Your task to perform on an android device: turn off javascript in the chrome app Image 0: 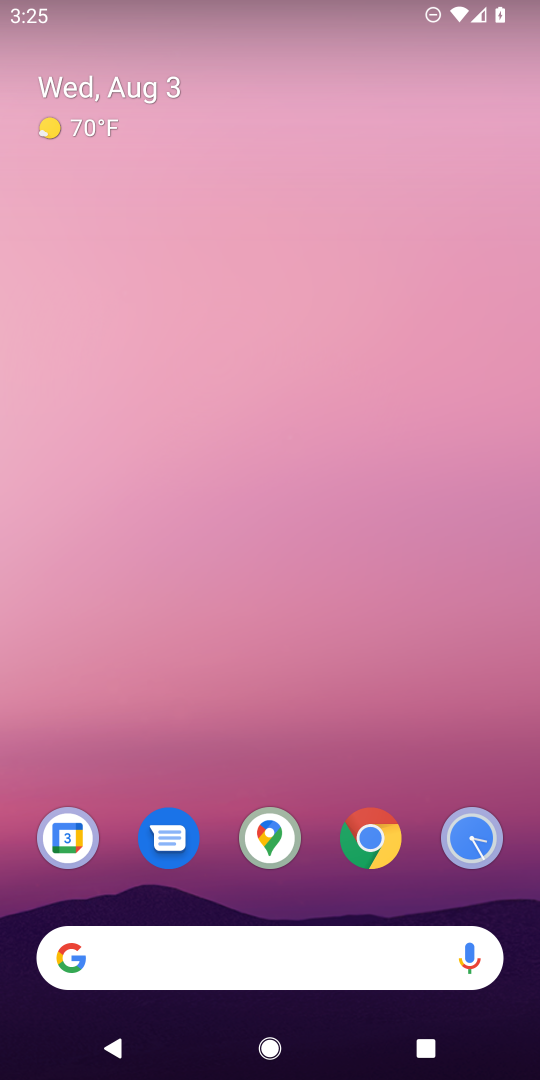
Step 0: click (377, 831)
Your task to perform on an android device: turn off javascript in the chrome app Image 1: 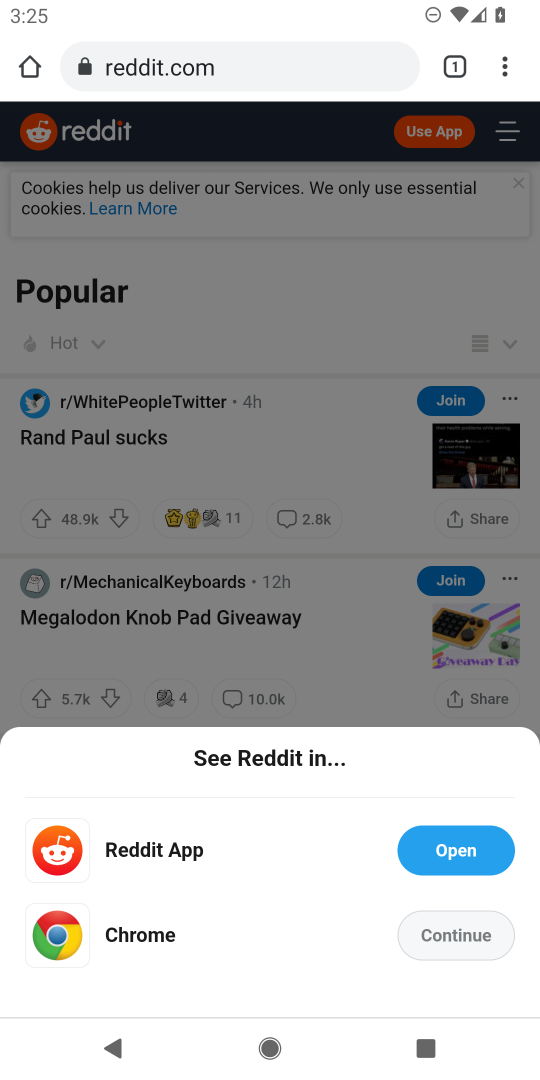
Step 1: click (507, 62)
Your task to perform on an android device: turn off javascript in the chrome app Image 2: 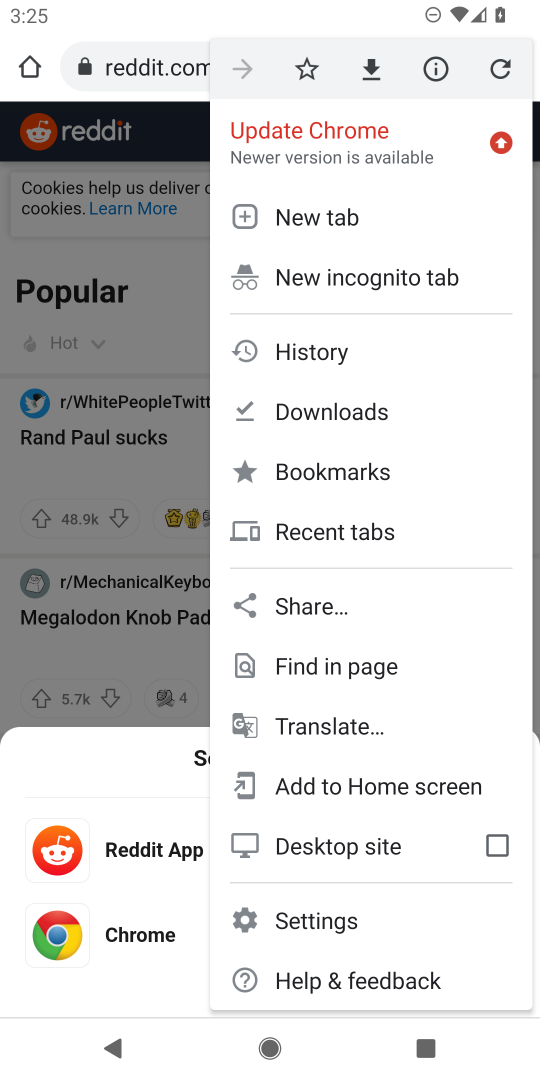
Step 2: click (290, 908)
Your task to perform on an android device: turn off javascript in the chrome app Image 3: 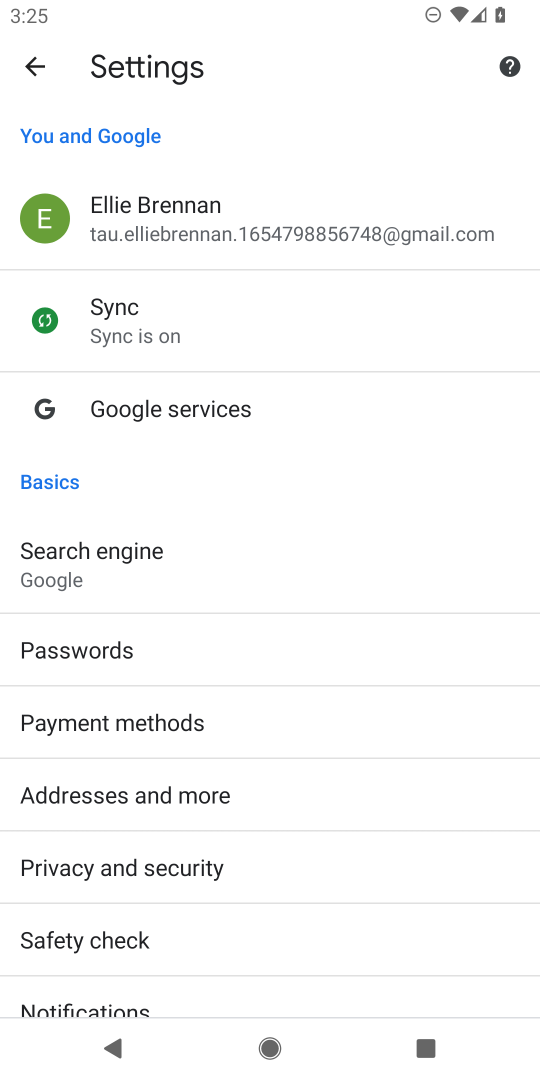
Step 3: drag from (171, 925) to (304, 23)
Your task to perform on an android device: turn off javascript in the chrome app Image 4: 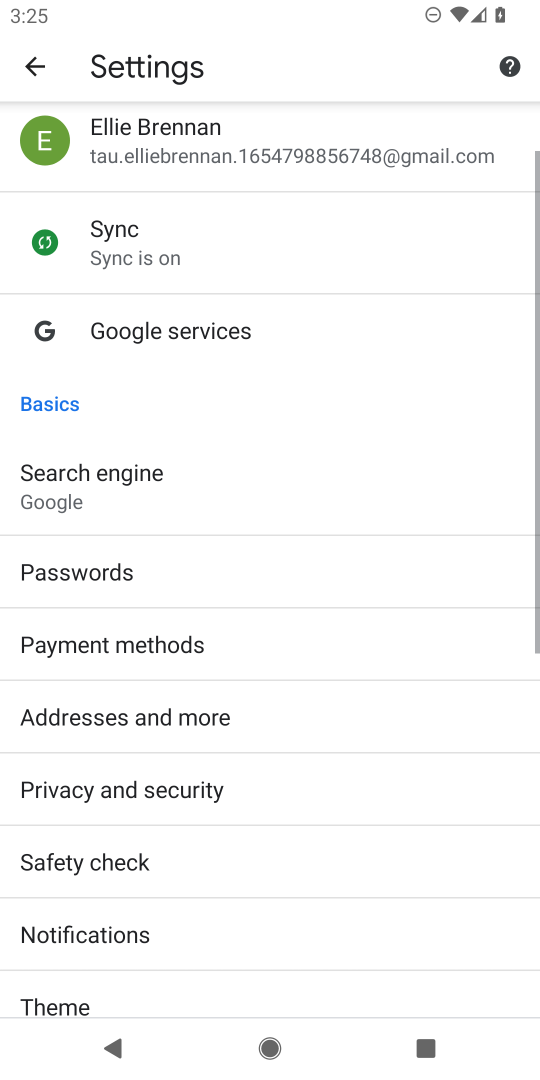
Step 4: drag from (258, 711) to (288, 366)
Your task to perform on an android device: turn off javascript in the chrome app Image 5: 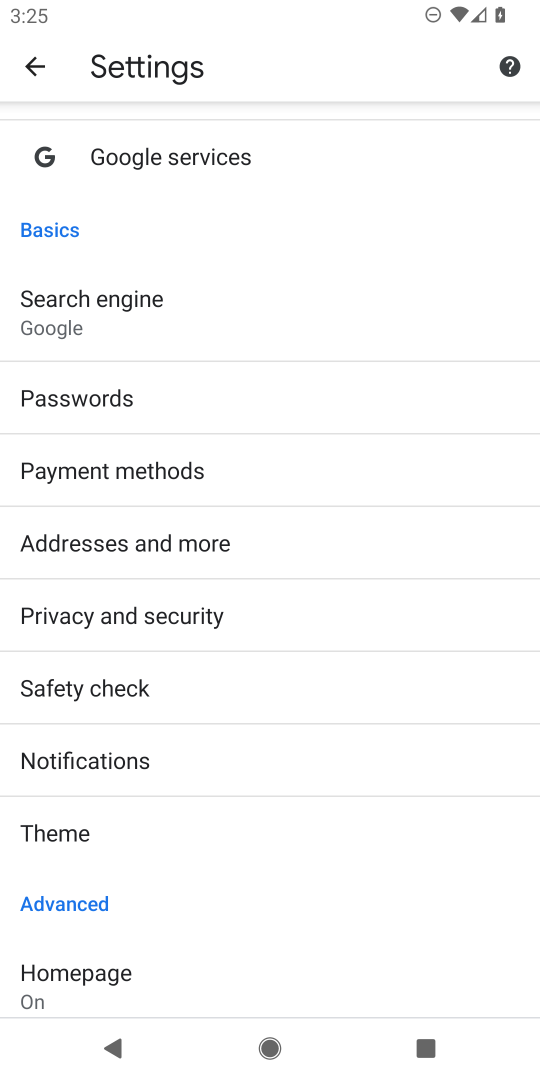
Step 5: drag from (193, 950) to (270, 523)
Your task to perform on an android device: turn off javascript in the chrome app Image 6: 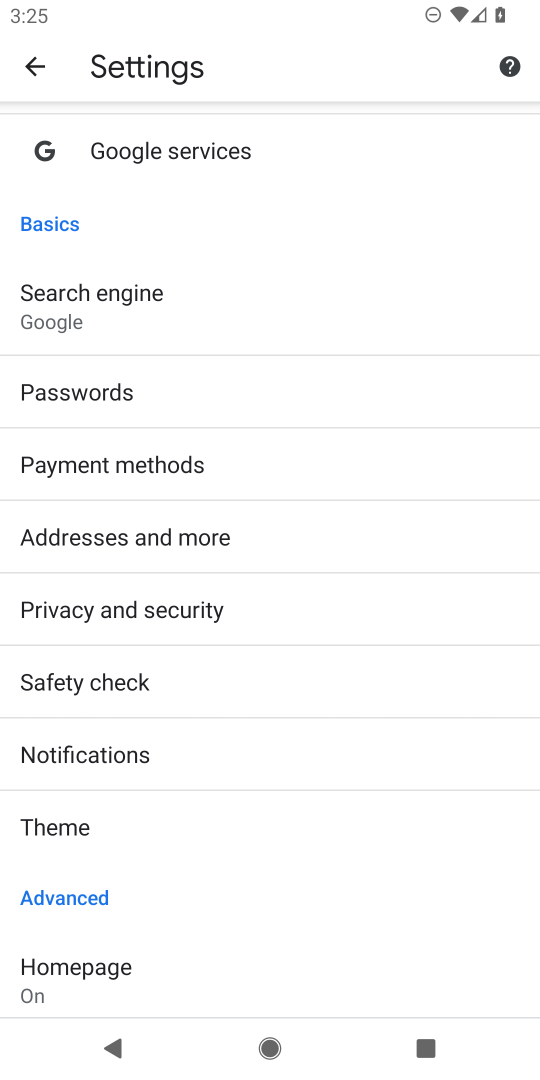
Step 6: drag from (175, 915) to (241, 411)
Your task to perform on an android device: turn off javascript in the chrome app Image 7: 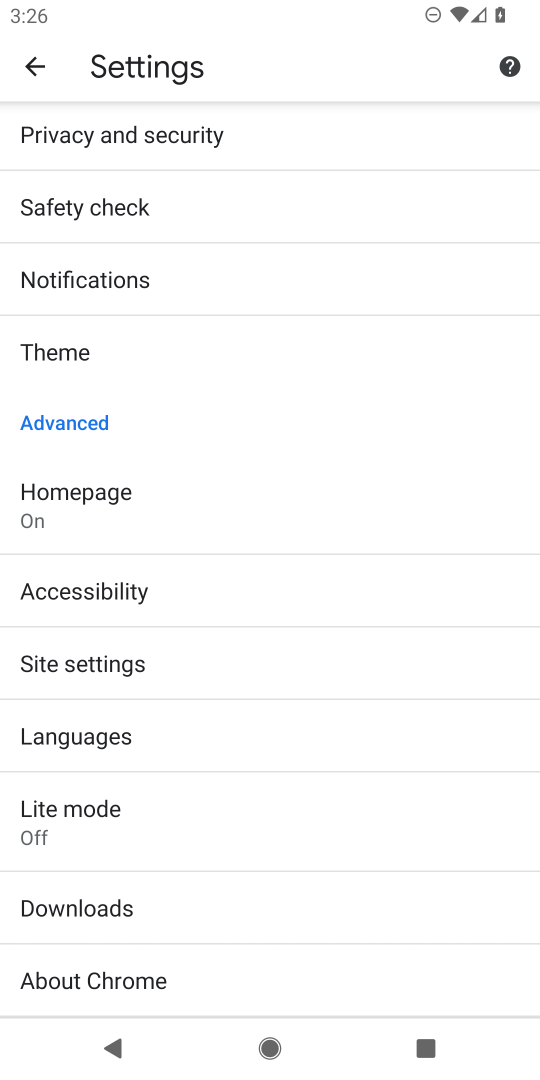
Step 7: click (189, 667)
Your task to perform on an android device: turn off javascript in the chrome app Image 8: 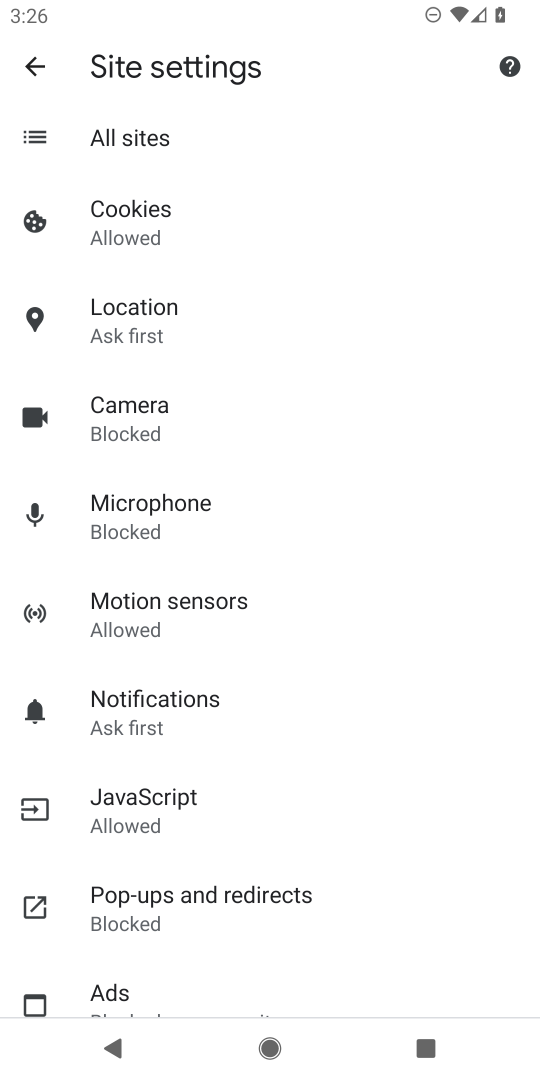
Step 8: click (170, 786)
Your task to perform on an android device: turn off javascript in the chrome app Image 9: 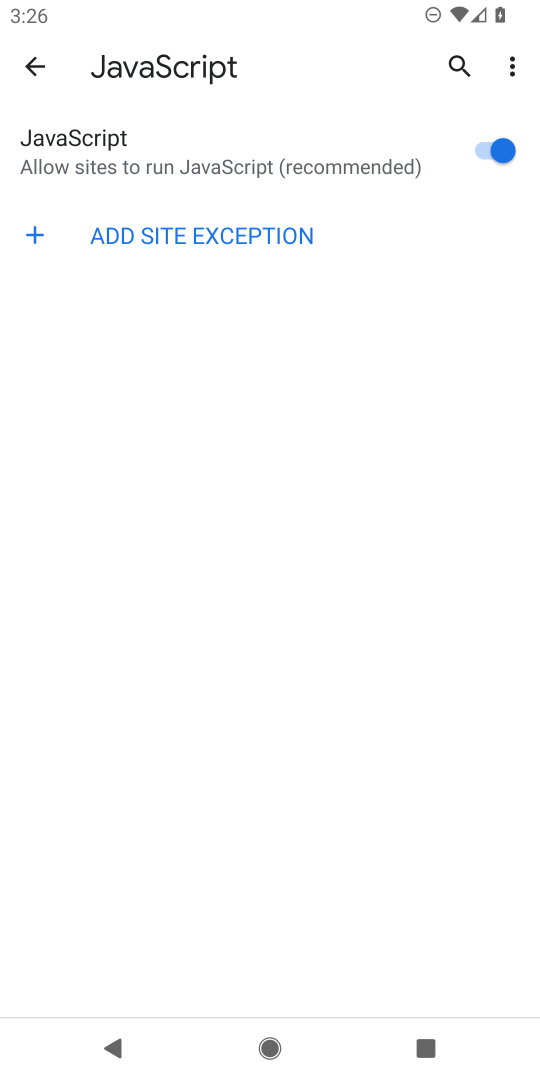
Step 9: click (469, 150)
Your task to perform on an android device: turn off javascript in the chrome app Image 10: 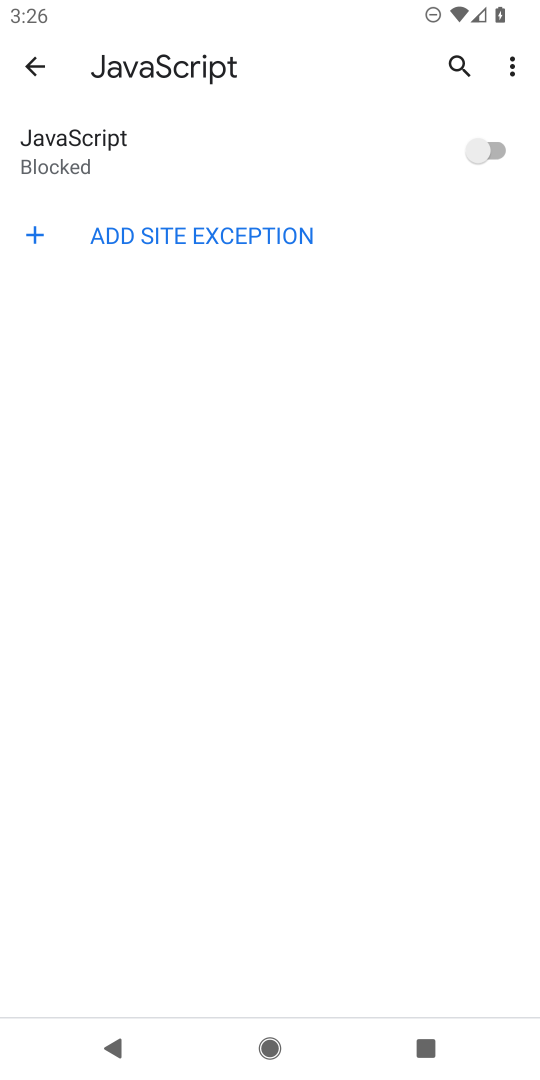
Step 10: task complete